Your task to perform on an android device: Open settings Image 0: 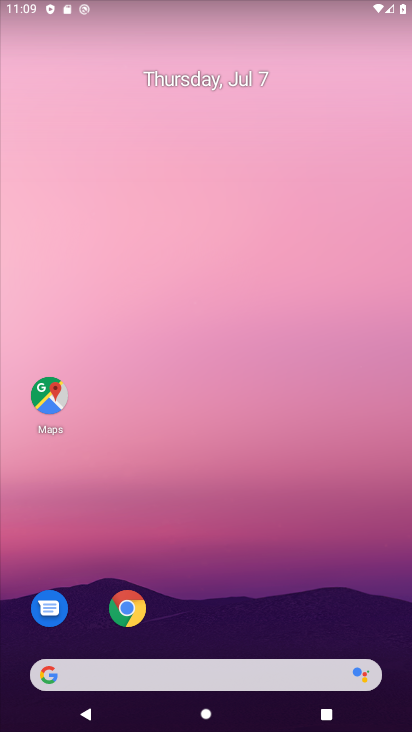
Step 0: click (268, 49)
Your task to perform on an android device: Open settings Image 1: 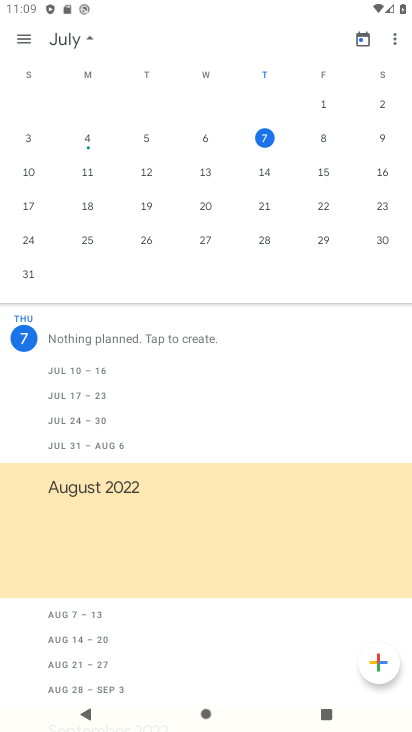
Step 1: press home button
Your task to perform on an android device: Open settings Image 2: 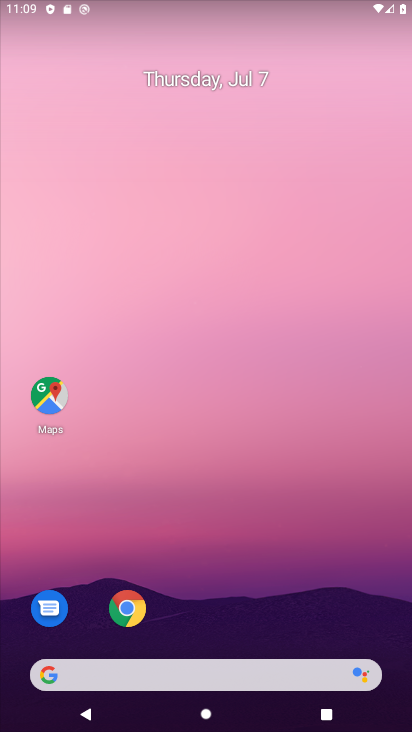
Step 2: drag from (222, 601) to (194, 15)
Your task to perform on an android device: Open settings Image 3: 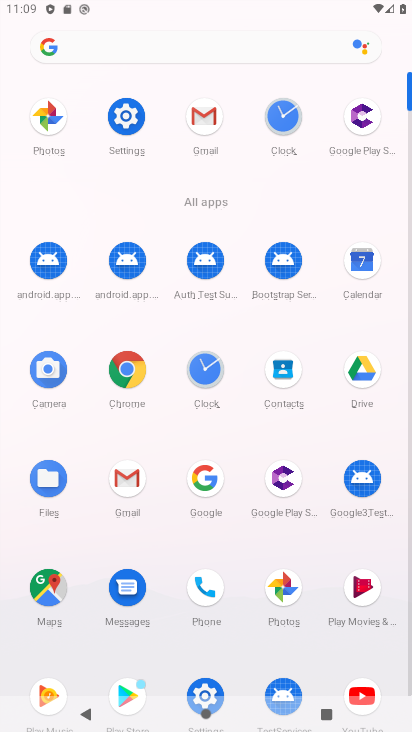
Step 3: click (206, 688)
Your task to perform on an android device: Open settings Image 4: 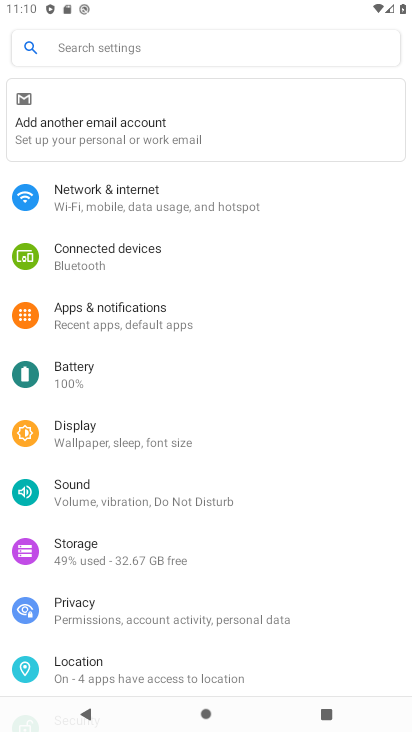
Step 4: task complete